Your task to perform on an android device: Open Maps and search for coffee Image 0: 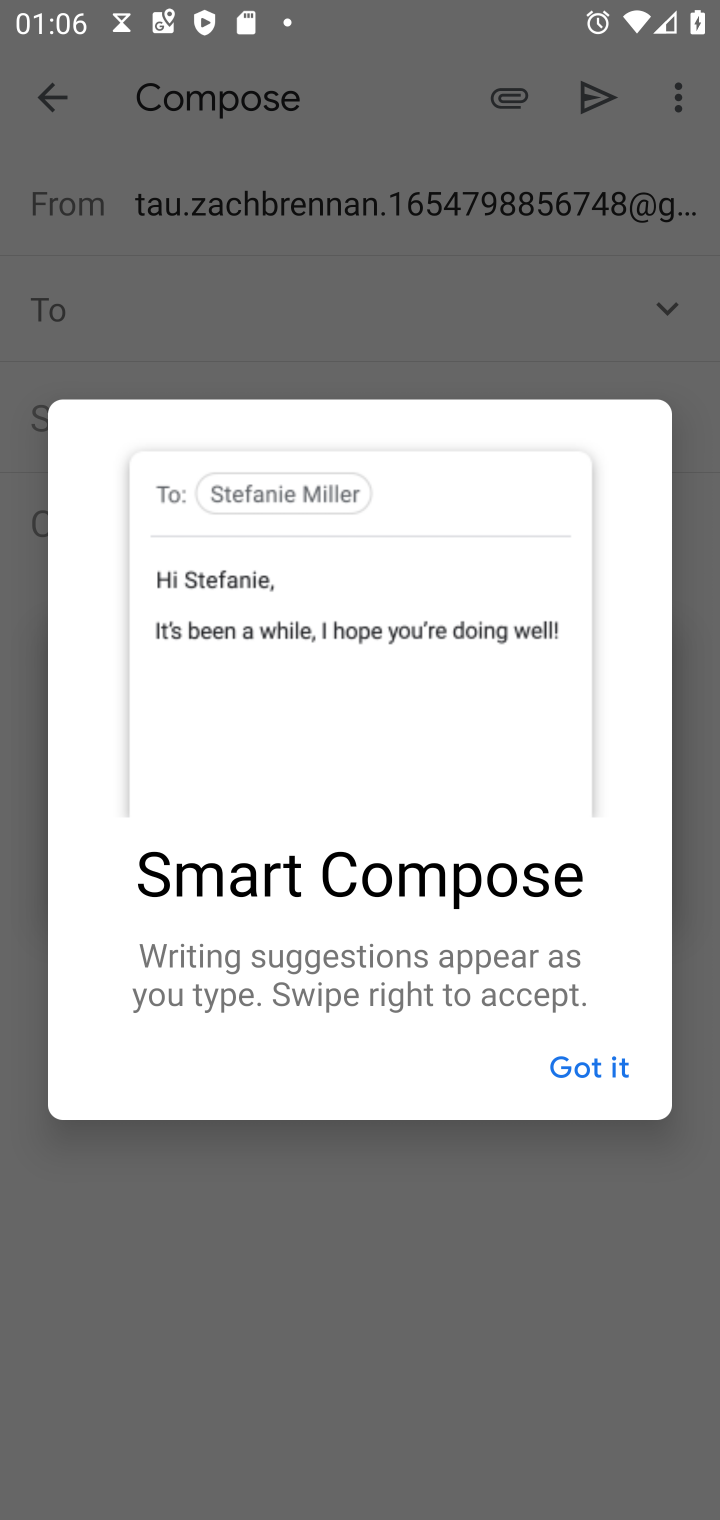
Step 0: press home button
Your task to perform on an android device: Open Maps and search for coffee Image 1: 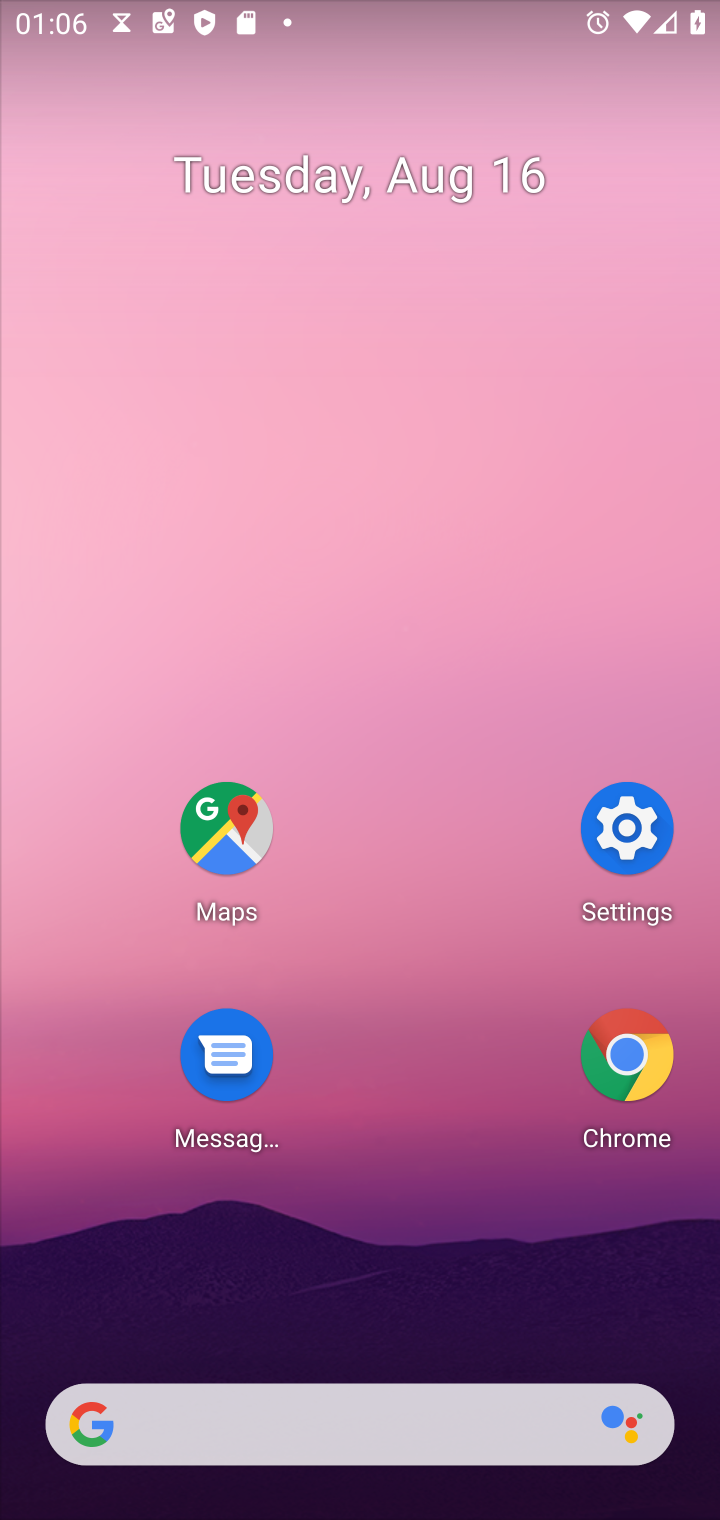
Step 1: click (232, 831)
Your task to perform on an android device: Open Maps and search for coffee Image 2: 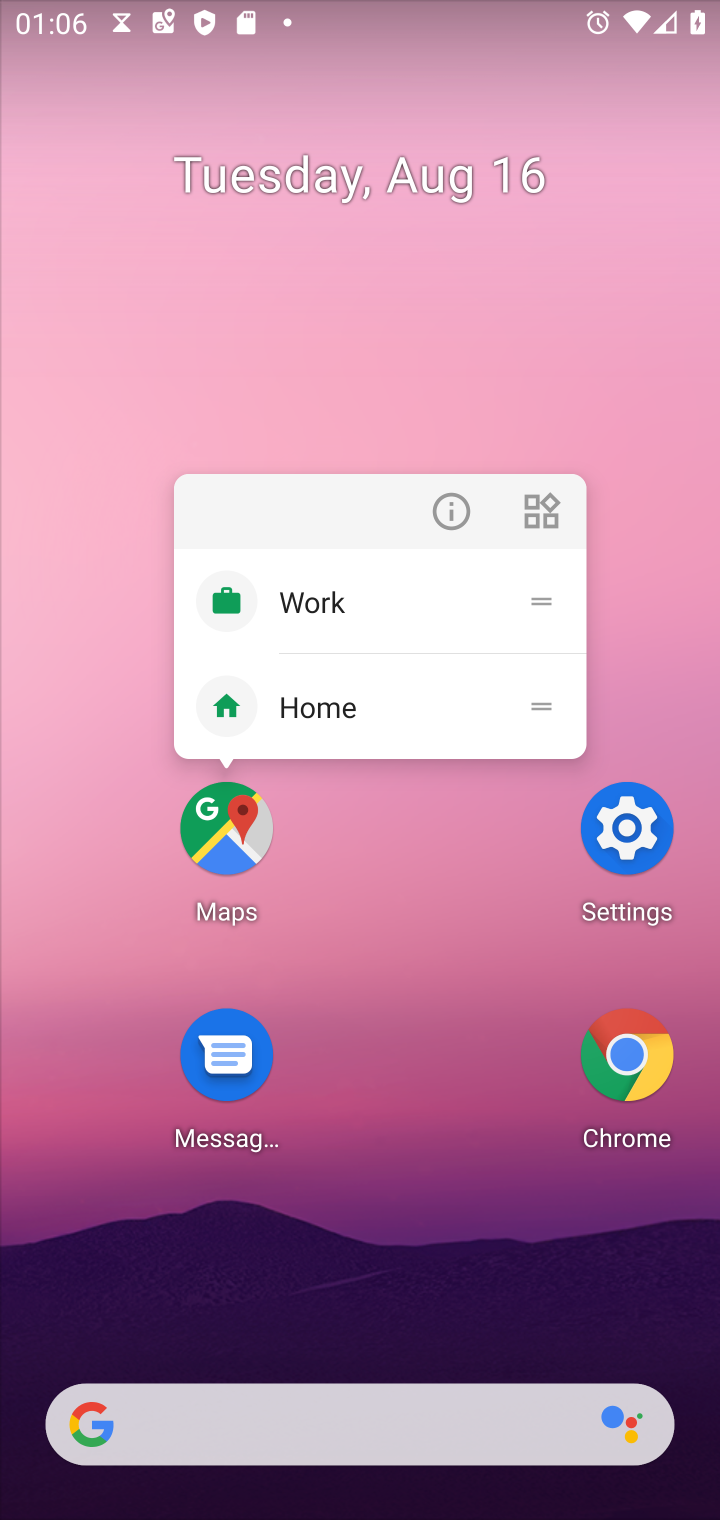
Step 2: click (232, 843)
Your task to perform on an android device: Open Maps and search for coffee Image 3: 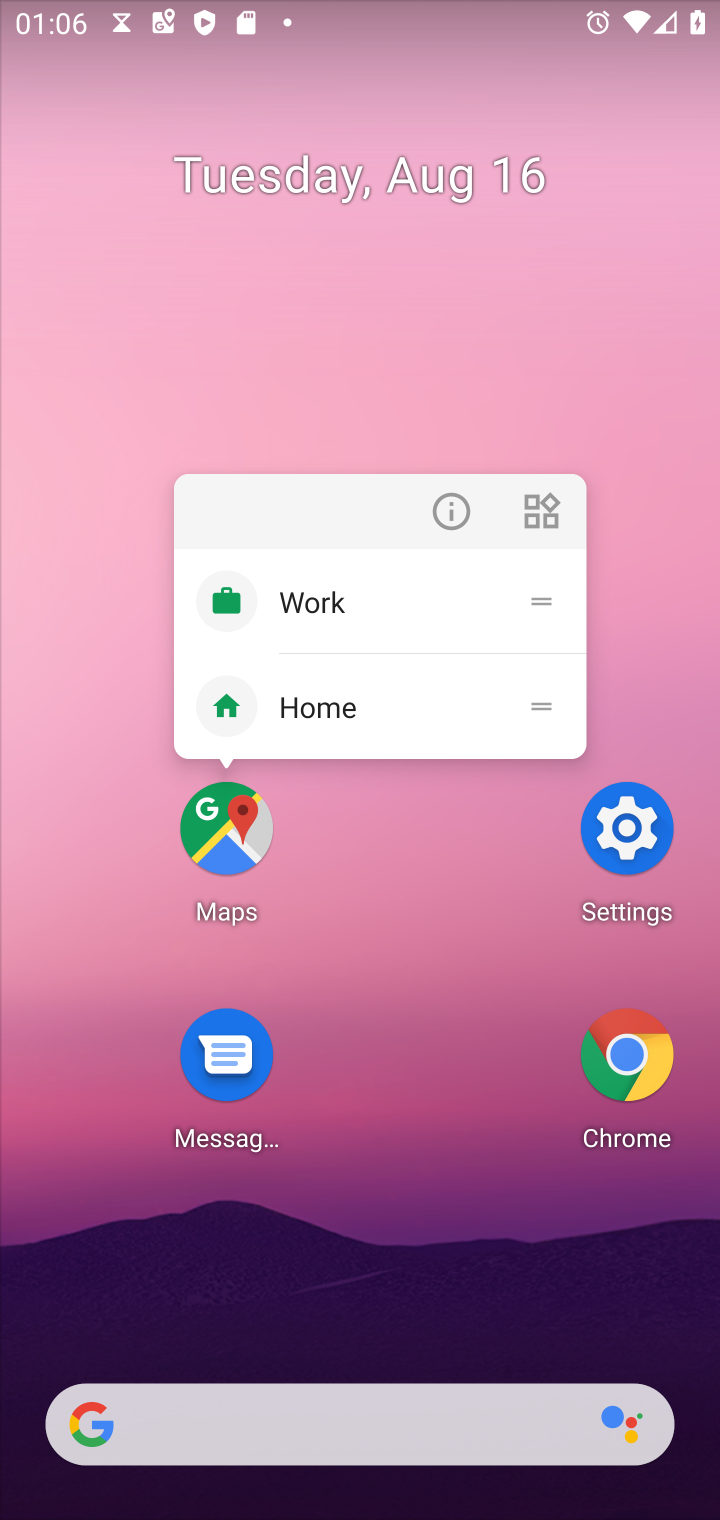
Step 3: click (227, 829)
Your task to perform on an android device: Open Maps and search for coffee Image 4: 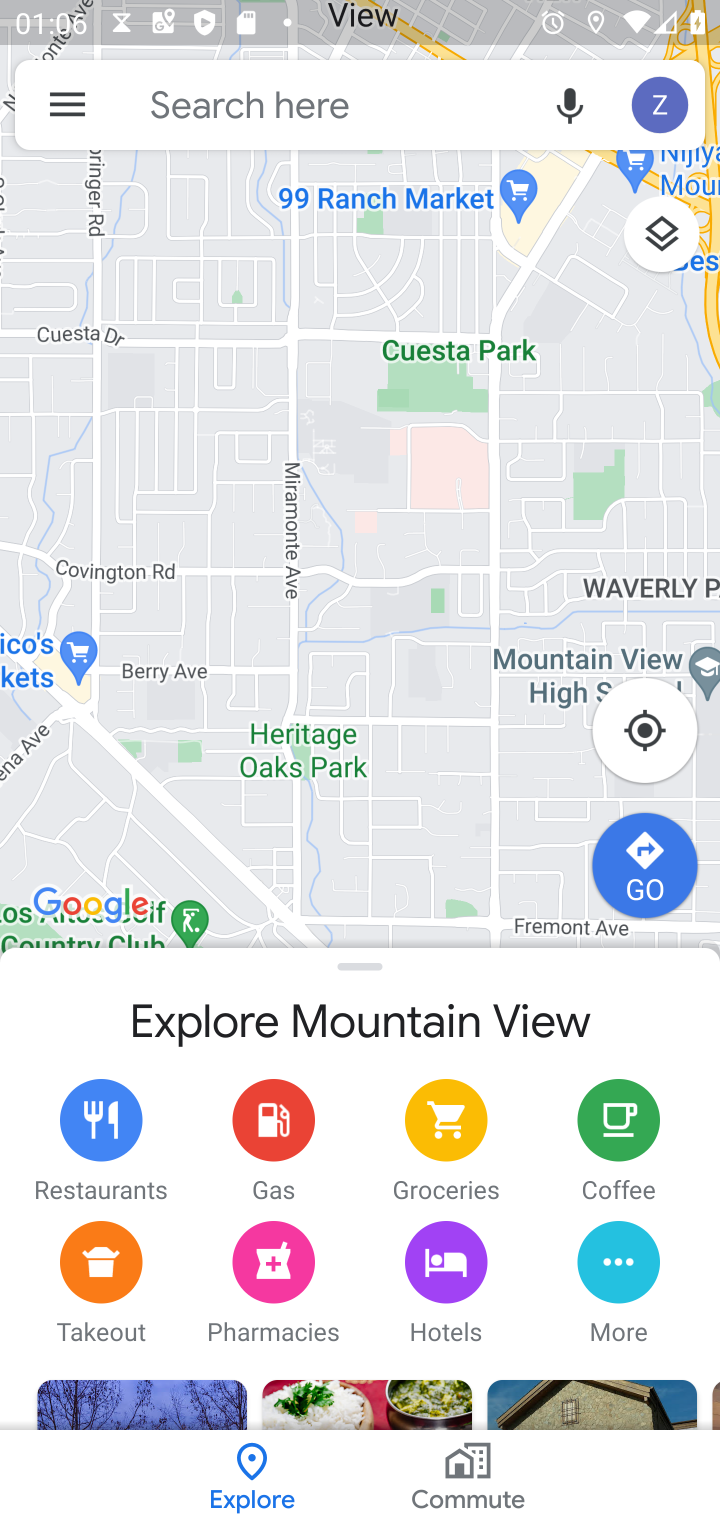
Step 4: click (363, 94)
Your task to perform on an android device: Open Maps and search for coffee Image 5: 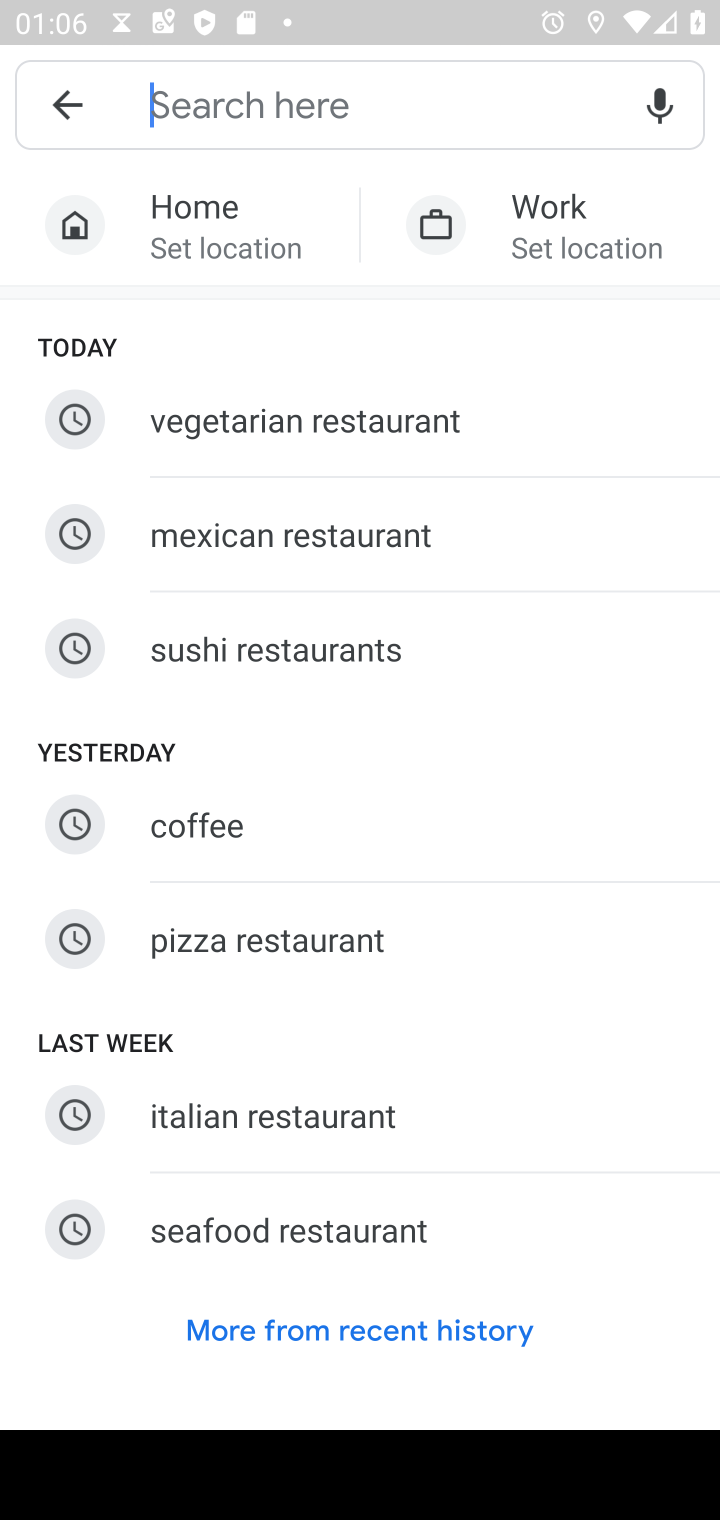
Step 5: click (193, 825)
Your task to perform on an android device: Open Maps and search for coffee Image 6: 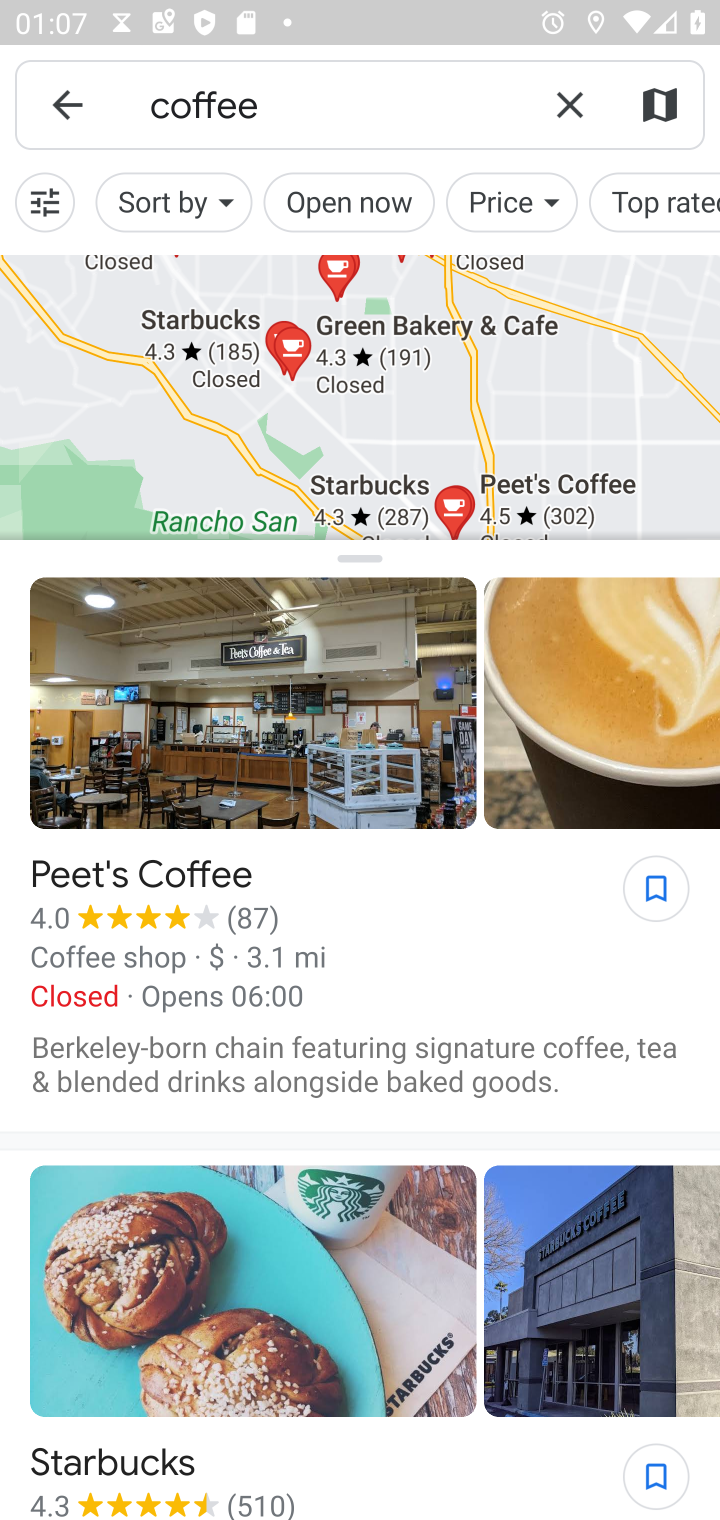
Step 6: task complete